Your task to perform on an android device: Go to CNN.com Image 0: 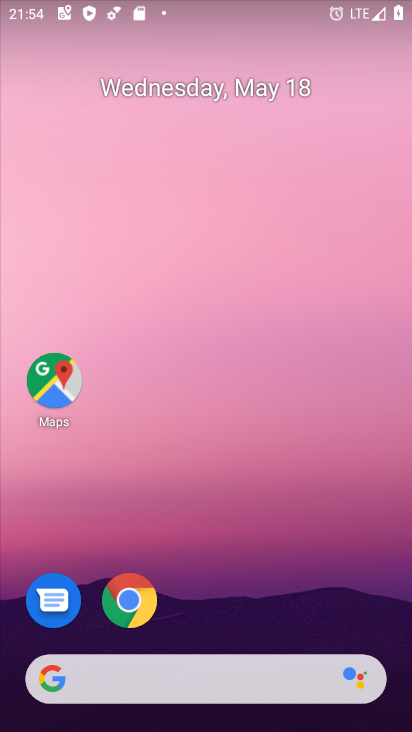
Step 0: click (131, 604)
Your task to perform on an android device: Go to CNN.com Image 1: 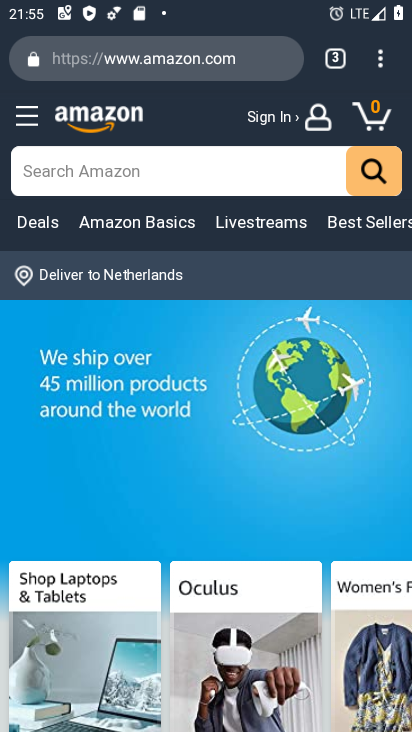
Step 1: click (333, 54)
Your task to perform on an android device: Go to CNN.com Image 2: 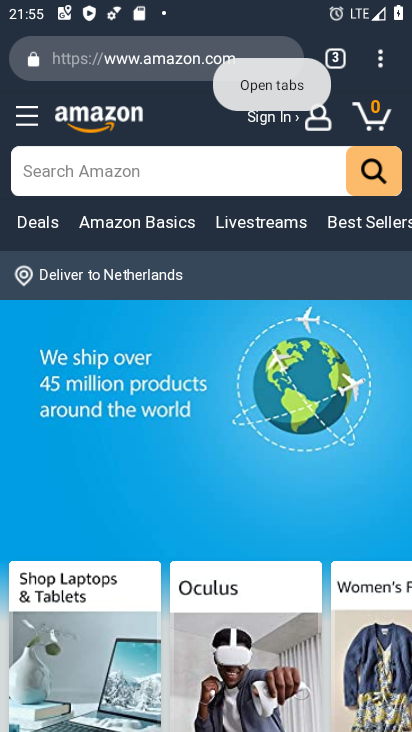
Step 2: click (339, 60)
Your task to perform on an android device: Go to CNN.com Image 3: 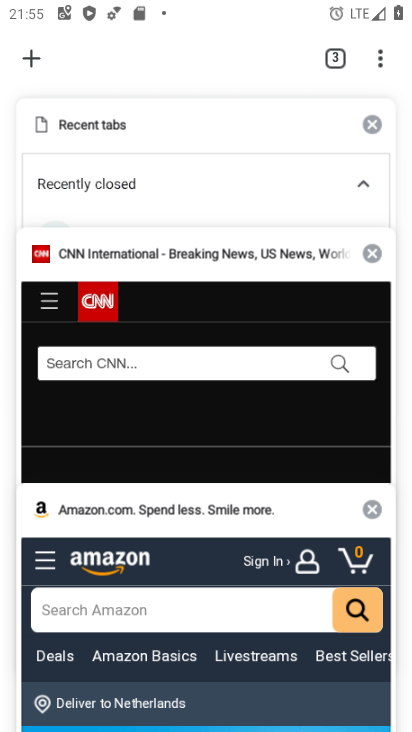
Step 3: click (17, 52)
Your task to perform on an android device: Go to CNN.com Image 4: 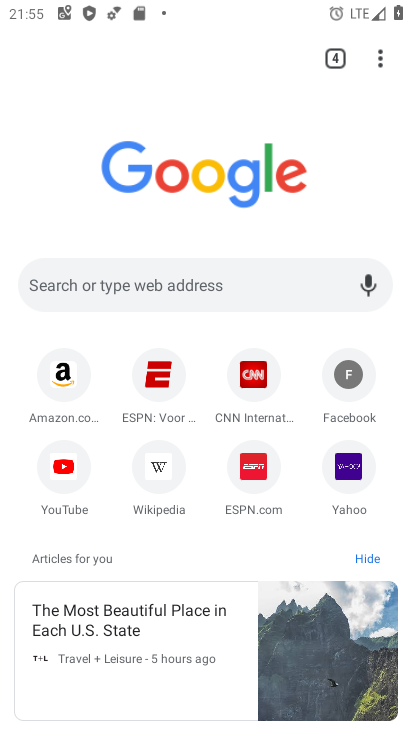
Step 4: click (251, 377)
Your task to perform on an android device: Go to CNN.com Image 5: 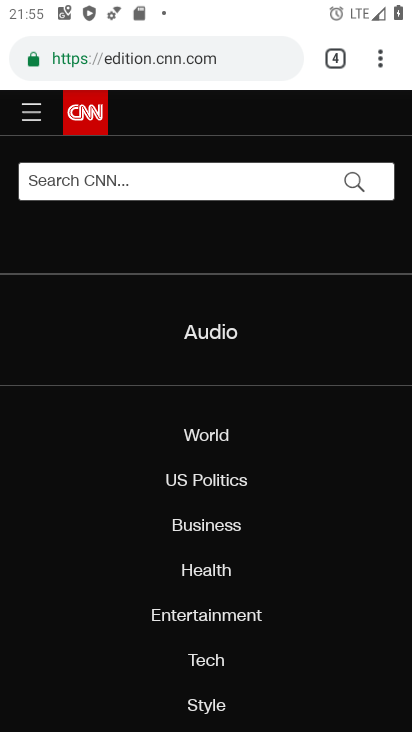
Step 5: task complete